Your task to perform on an android device: toggle priority inbox in the gmail app Image 0: 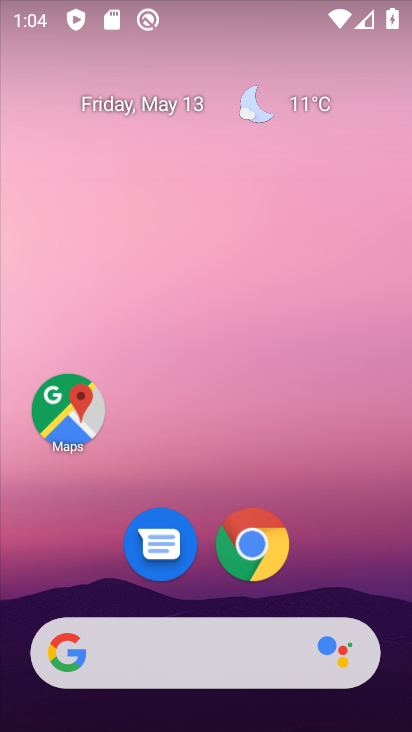
Step 0: drag from (203, 504) to (230, 262)
Your task to perform on an android device: toggle priority inbox in the gmail app Image 1: 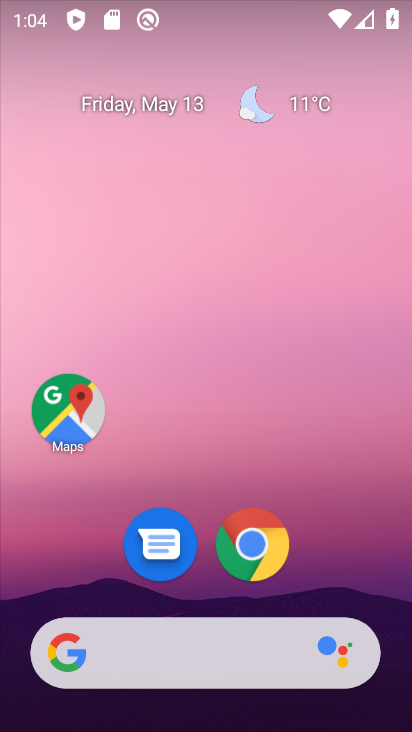
Step 1: drag from (210, 564) to (289, 137)
Your task to perform on an android device: toggle priority inbox in the gmail app Image 2: 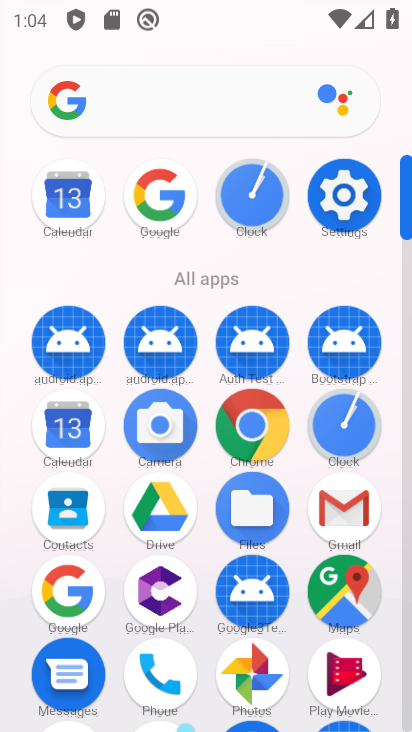
Step 2: click (343, 515)
Your task to perform on an android device: toggle priority inbox in the gmail app Image 3: 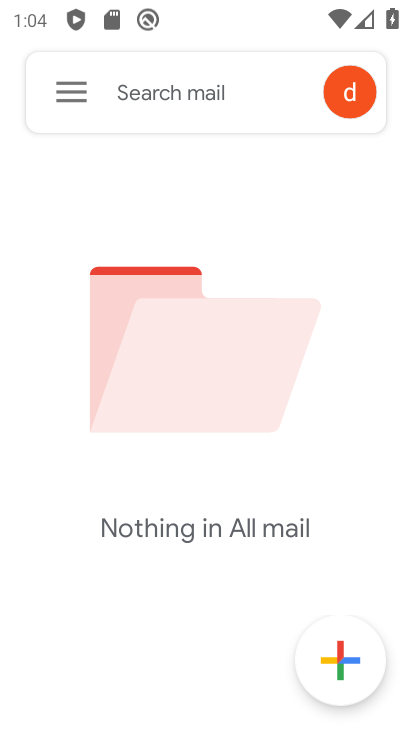
Step 3: click (75, 93)
Your task to perform on an android device: toggle priority inbox in the gmail app Image 4: 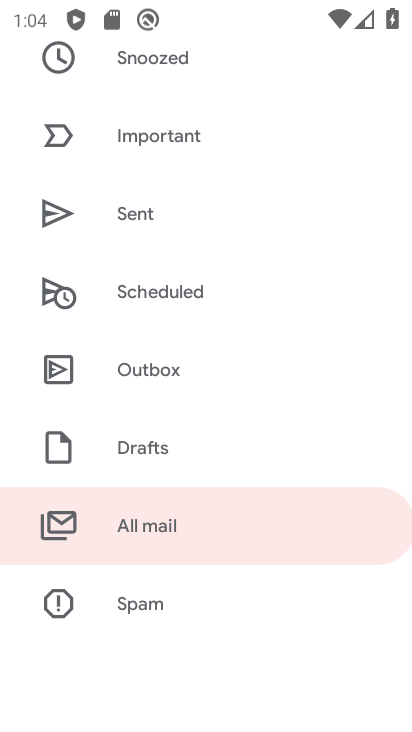
Step 4: drag from (269, 634) to (282, 365)
Your task to perform on an android device: toggle priority inbox in the gmail app Image 5: 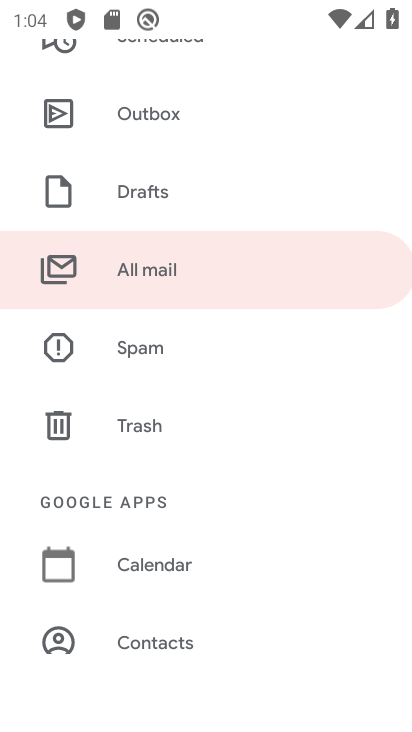
Step 5: drag from (230, 604) to (286, 214)
Your task to perform on an android device: toggle priority inbox in the gmail app Image 6: 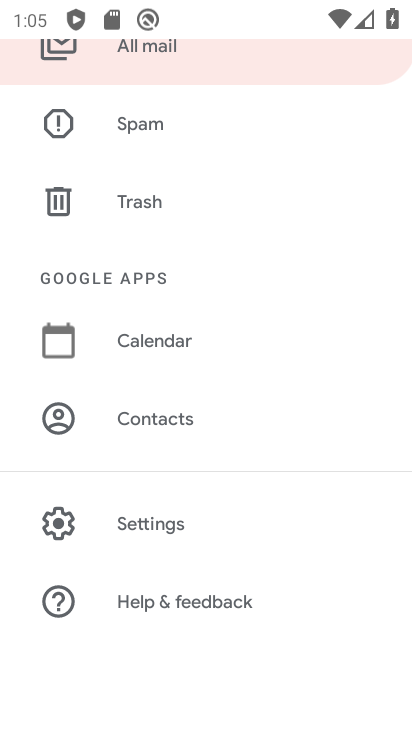
Step 6: click (192, 524)
Your task to perform on an android device: toggle priority inbox in the gmail app Image 7: 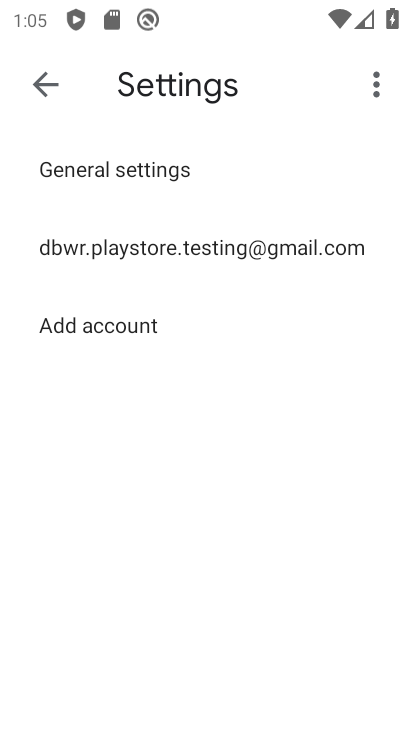
Step 7: click (162, 249)
Your task to perform on an android device: toggle priority inbox in the gmail app Image 8: 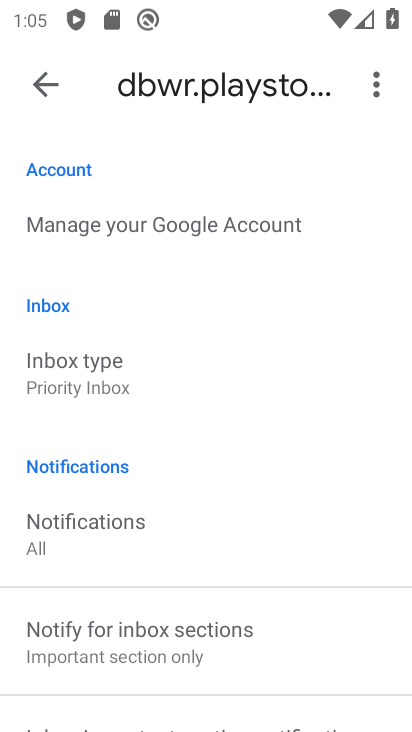
Step 8: click (94, 376)
Your task to perform on an android device: toggle priority inbox in the gmail app Image 9: 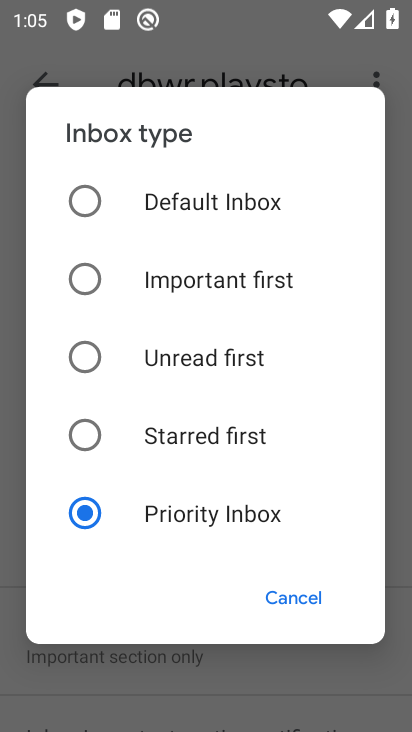
Step 9: task complete